Your task to perform on an android device: Turn on the flashlight Image 0: 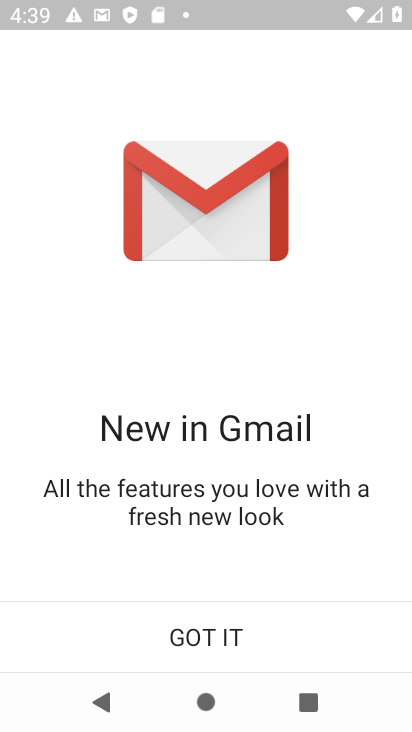
Step 0: drag from (236, 12) to (237, 444)
Your task to perform on an android device: Turn on the flashlight Image 1: 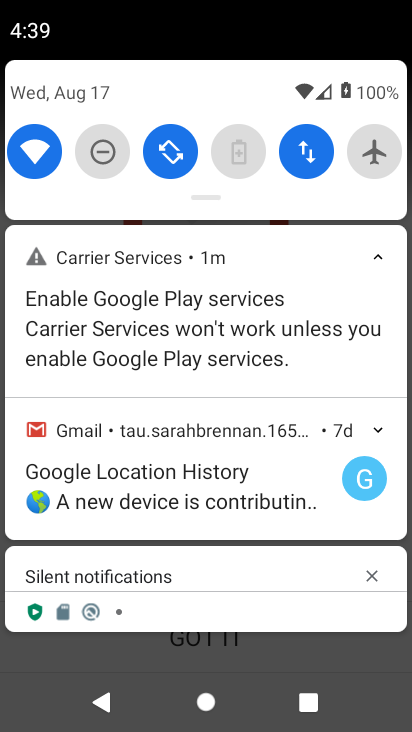
Step 1: drag from (179, 165) to (185, 514)
Your task to perform on an android device: Turn on the flashlight Image 2: 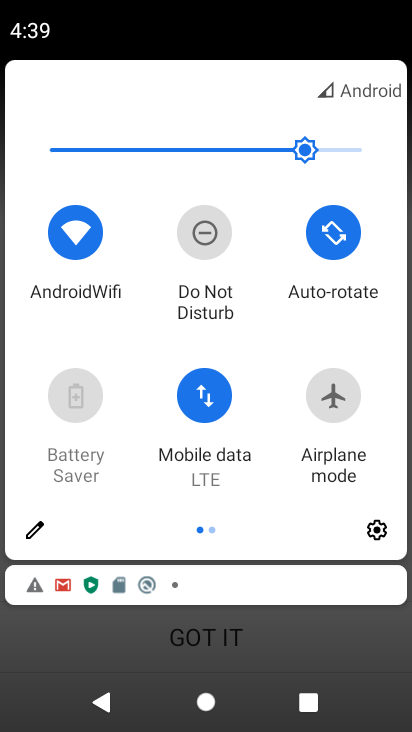
Step 2: click (31, 538)
Your task to perform on an android device: Turn on the flashlight Image 3: 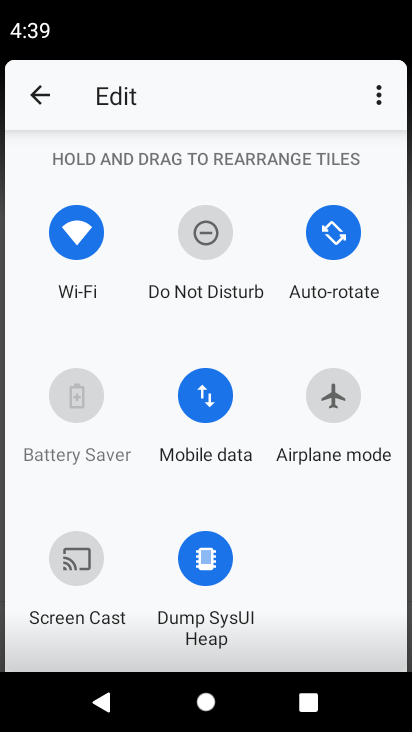
Step 3: task complete